Your task to perform on an android device: Go to display settings Image 0: 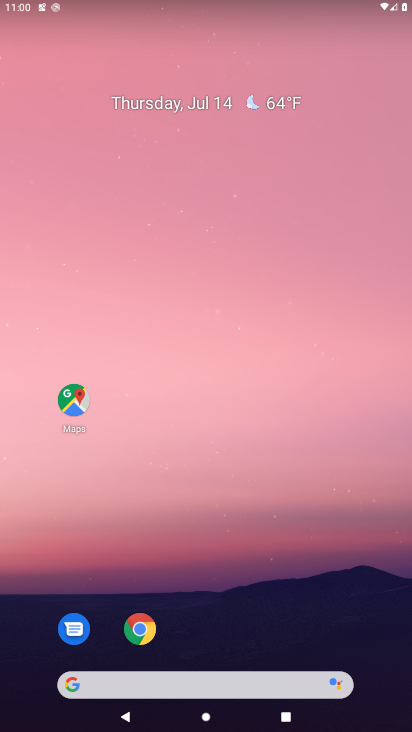
Step 0: drag from (251, 521) to (353, 112)
Your task to perform on an android device: Go to display settings Image 1: 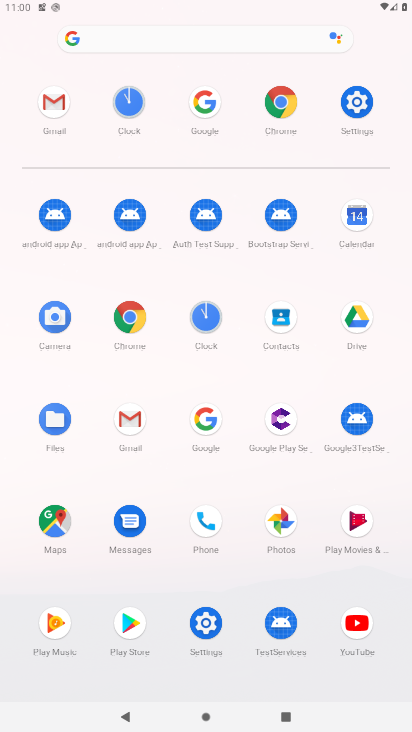
Step 1: click (349, 92)
Your task to perform on an android device: Go to display settings Image 2: 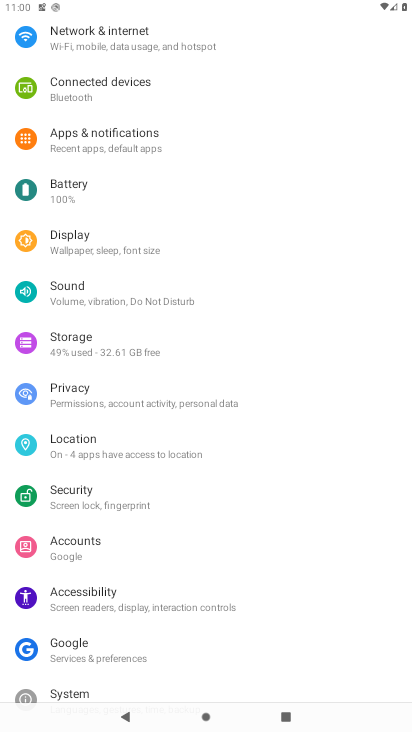
Step 2: click (79, 235)
Your task to perform on an android device: Go to display settings Image 3: 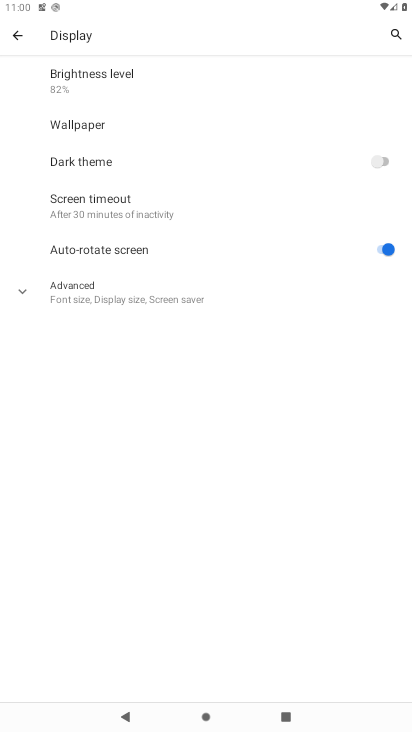
Step 3: click (86, 291)
Your task to perform on an android device: Go to display settings Image 4: 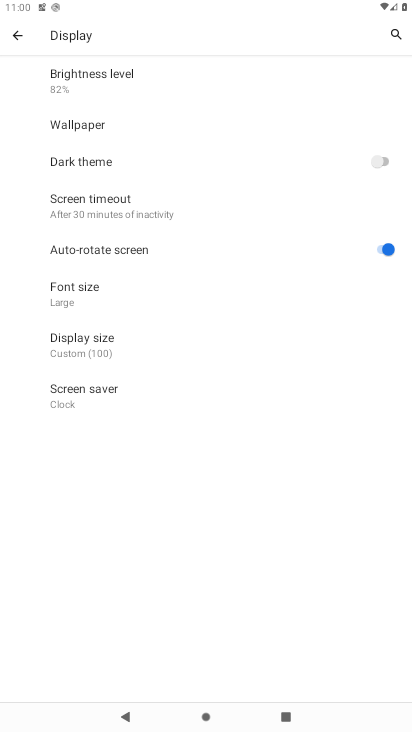
Step 4: task complete